Your task to perform on an android device: open app "Pluto TV - Live TV and Movies" (install if not already installed) and go to login screen Image 0: 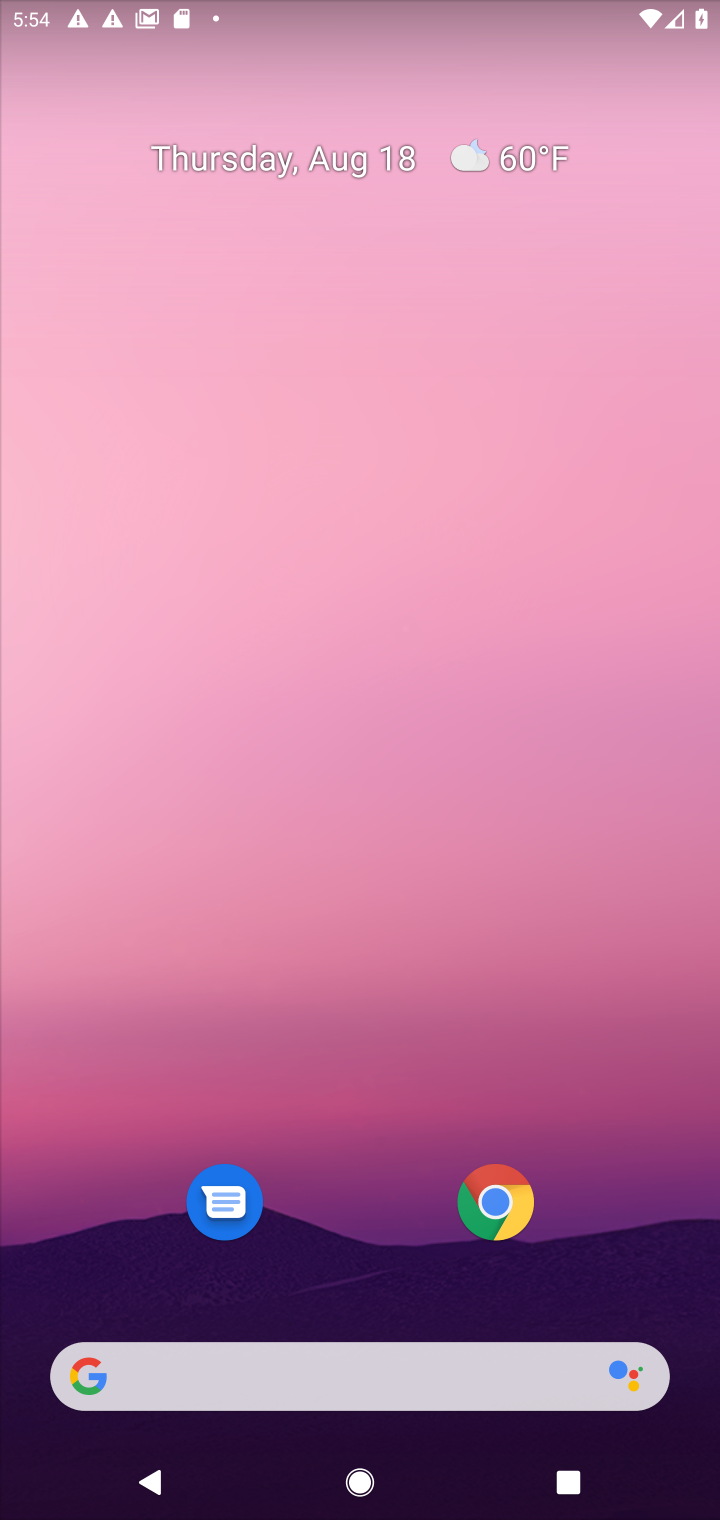
Step 0: drag from (346, 932) to (314, 218)
Your task to perform on an android device: open app "Pluto TV - Live TV and Movies" (install if not already installed) and go to login screen Image 1: 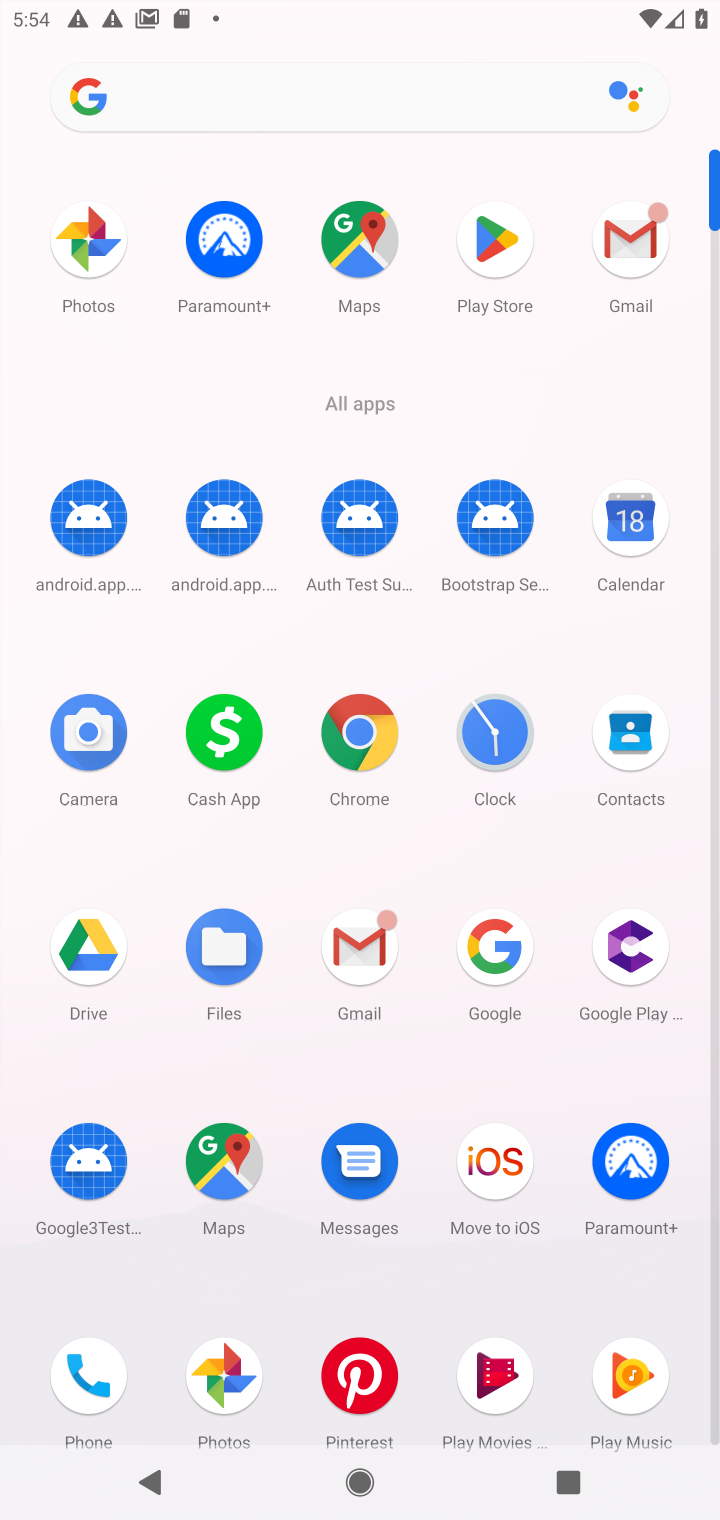
Step 1: click (492, 267)
Your task to perform on an android device: open app "Pluto TV - Live TV and Movies" (install if not already installed) and go to login screen Image 2: 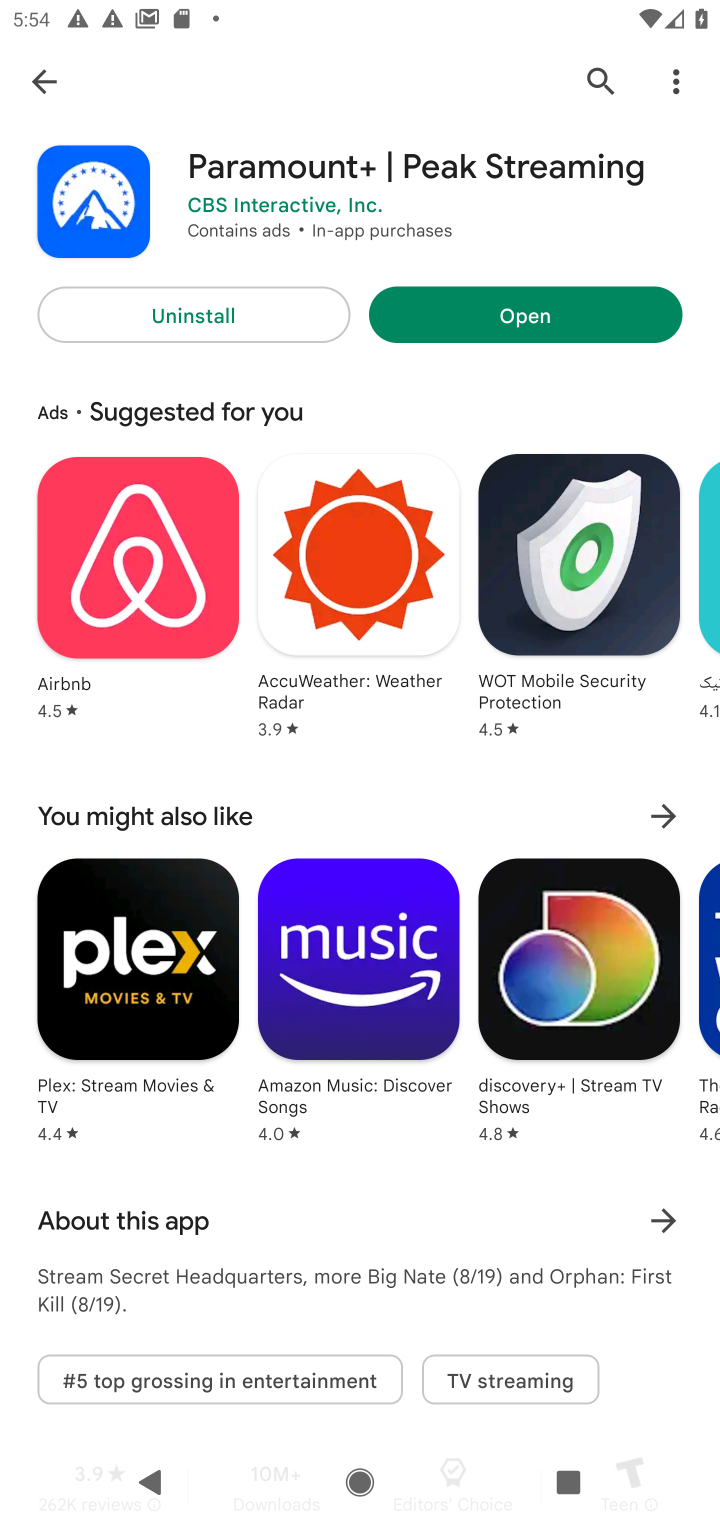
Step 2: click (591, 90)
Your task to perform on an android device: open app "Pluto TV - Live TV and Movies" (install if not already installed) and go to login screen Image 3: 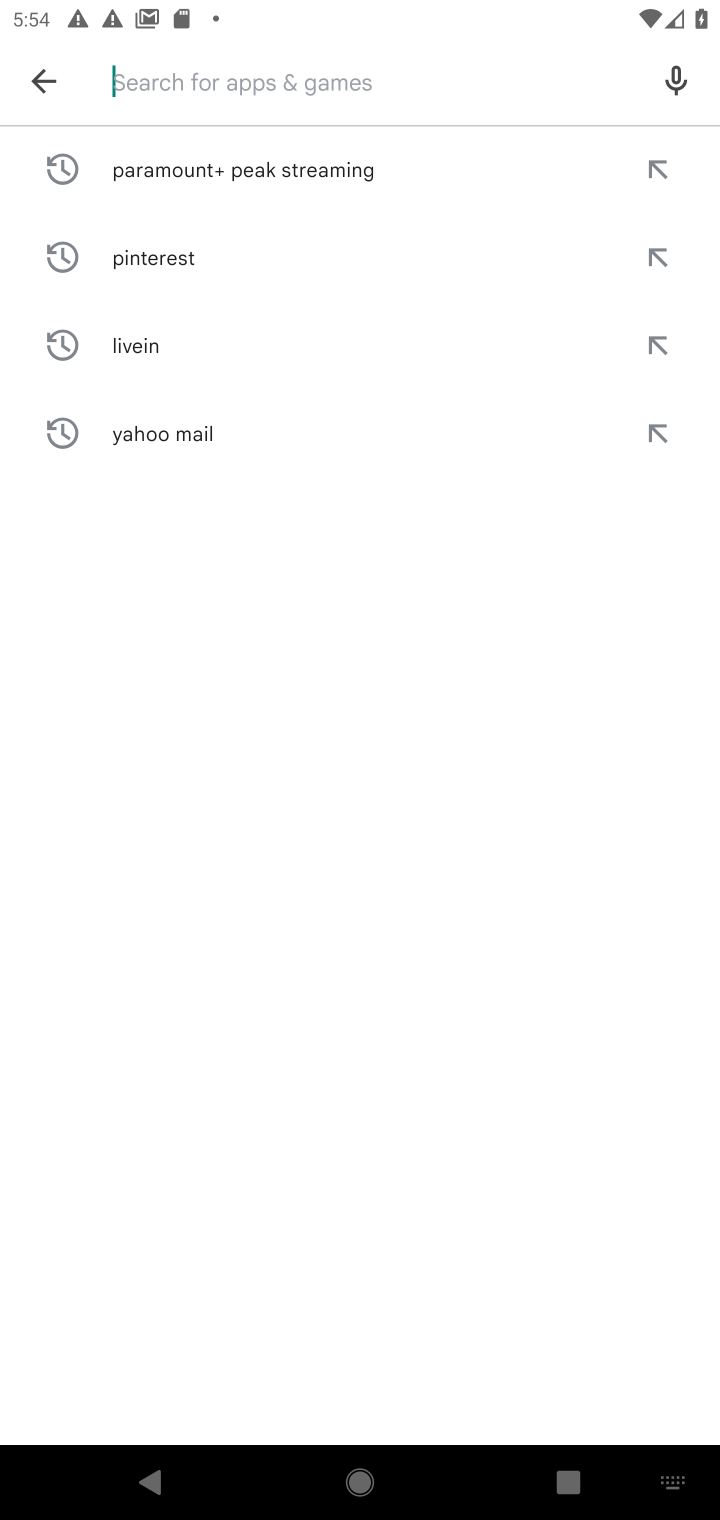
Step 3: type "pluto tv"
Your task to perform on an android device: open app "Pluto TV - Live TV and Movies" (install if not already installed) and go to login screen Image 4: 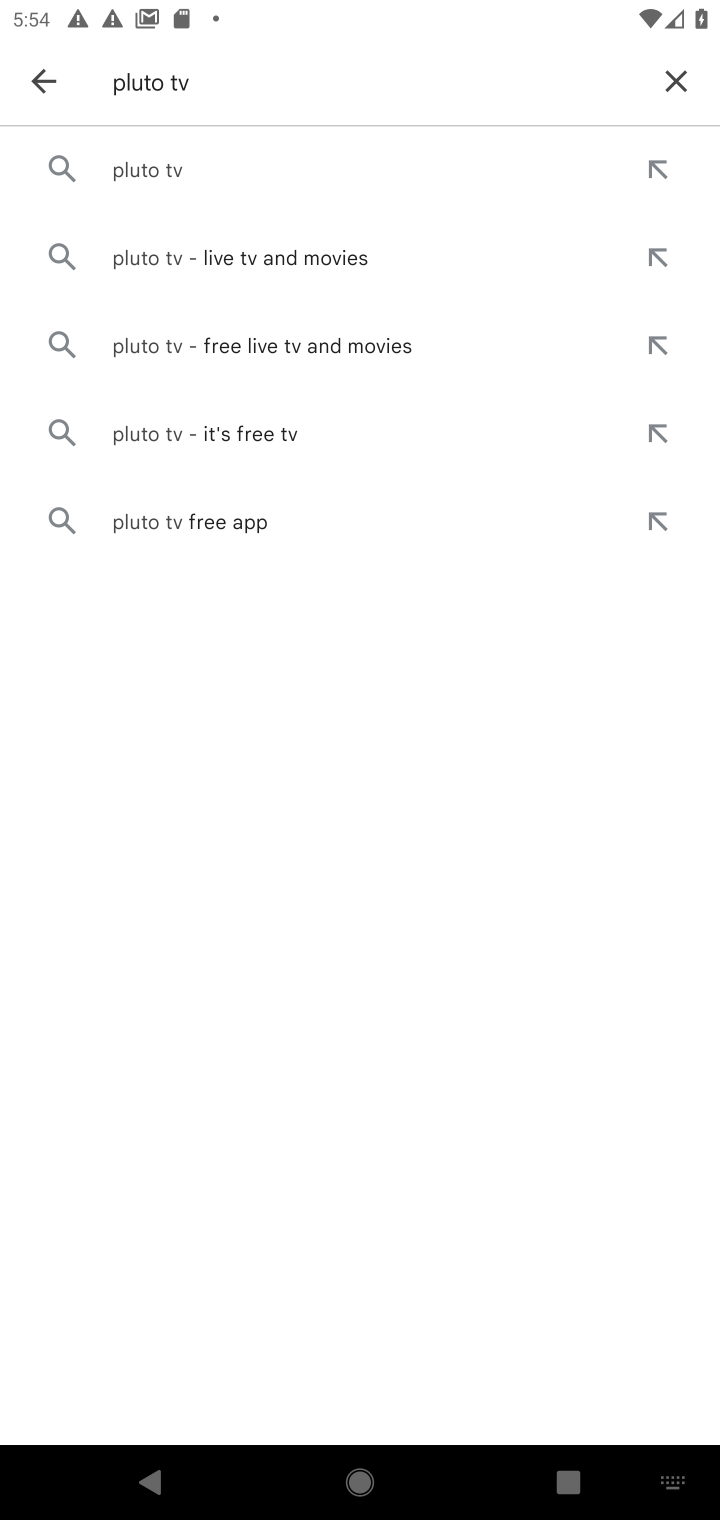
Step 4: click (212, 183)
Your task to perform on an android device: open app "Pluto TV - Live TV and Movies" (install if not already installed) and go to login screen Image 5: 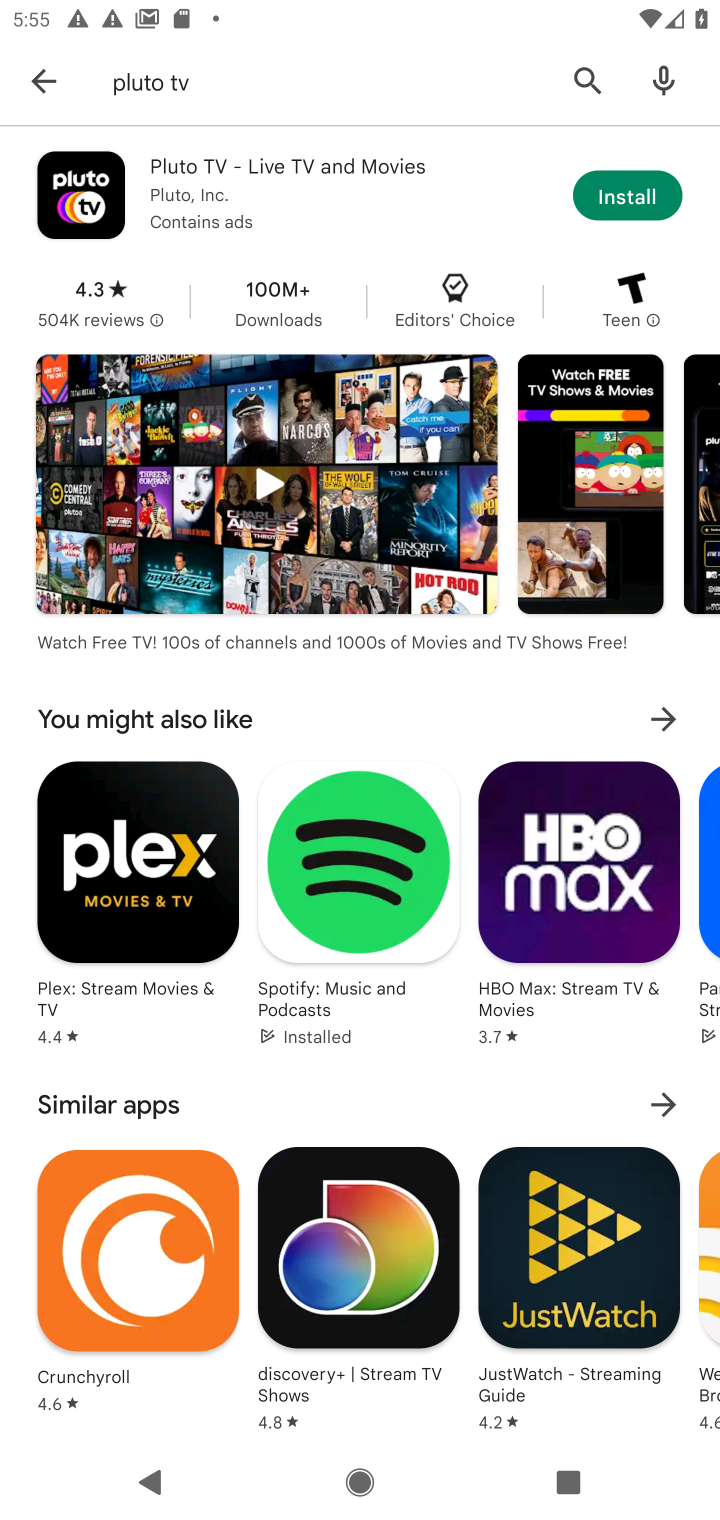
Step 5: click (648, 202)
Your task to perform on an android device: open app "Pluto TV - Live TV and Movies" (install if not already installed) and go to login screen Image 6: 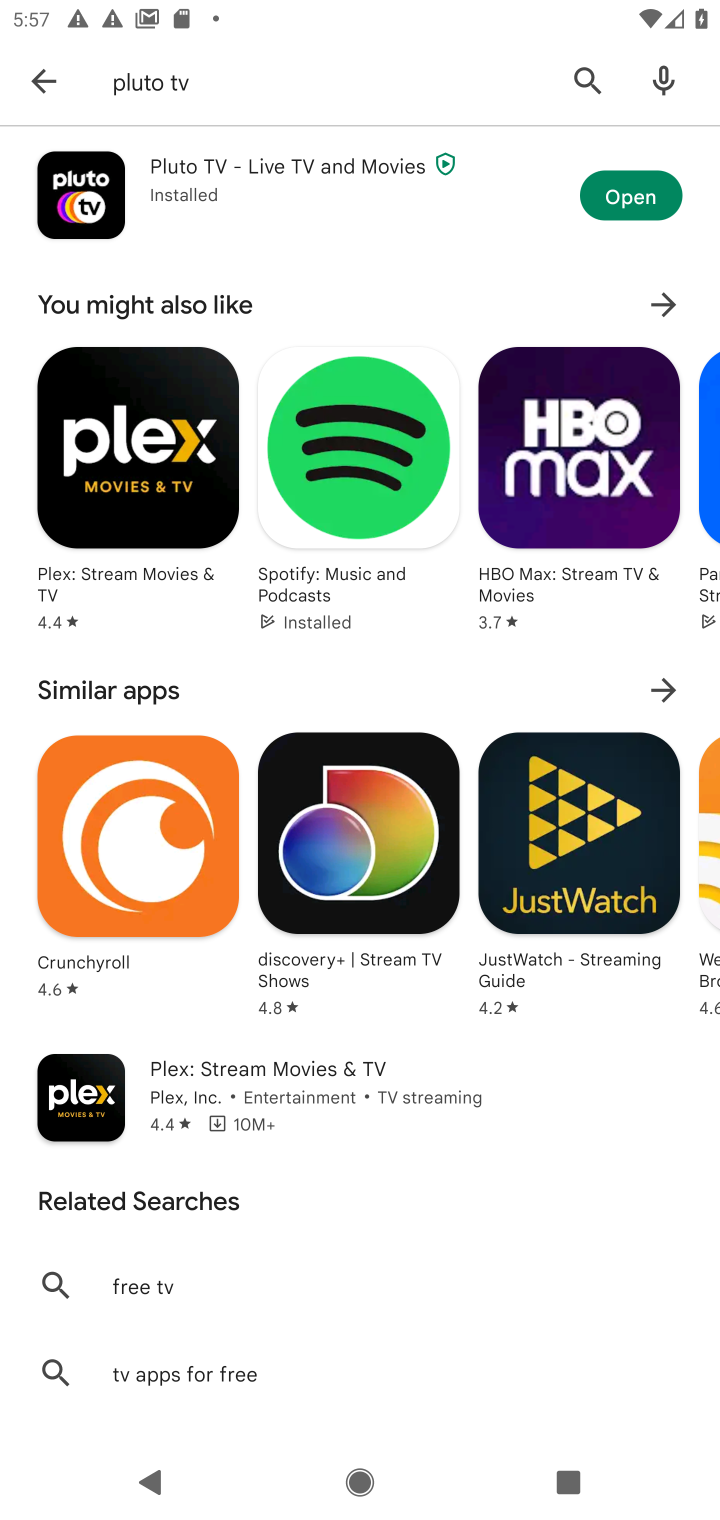
Step 6: click (597, 183)
Your task to perform on an android device: open app "Pluto TV - Live TV and Movies" (install if not already installed) and go to login screen Image 7: 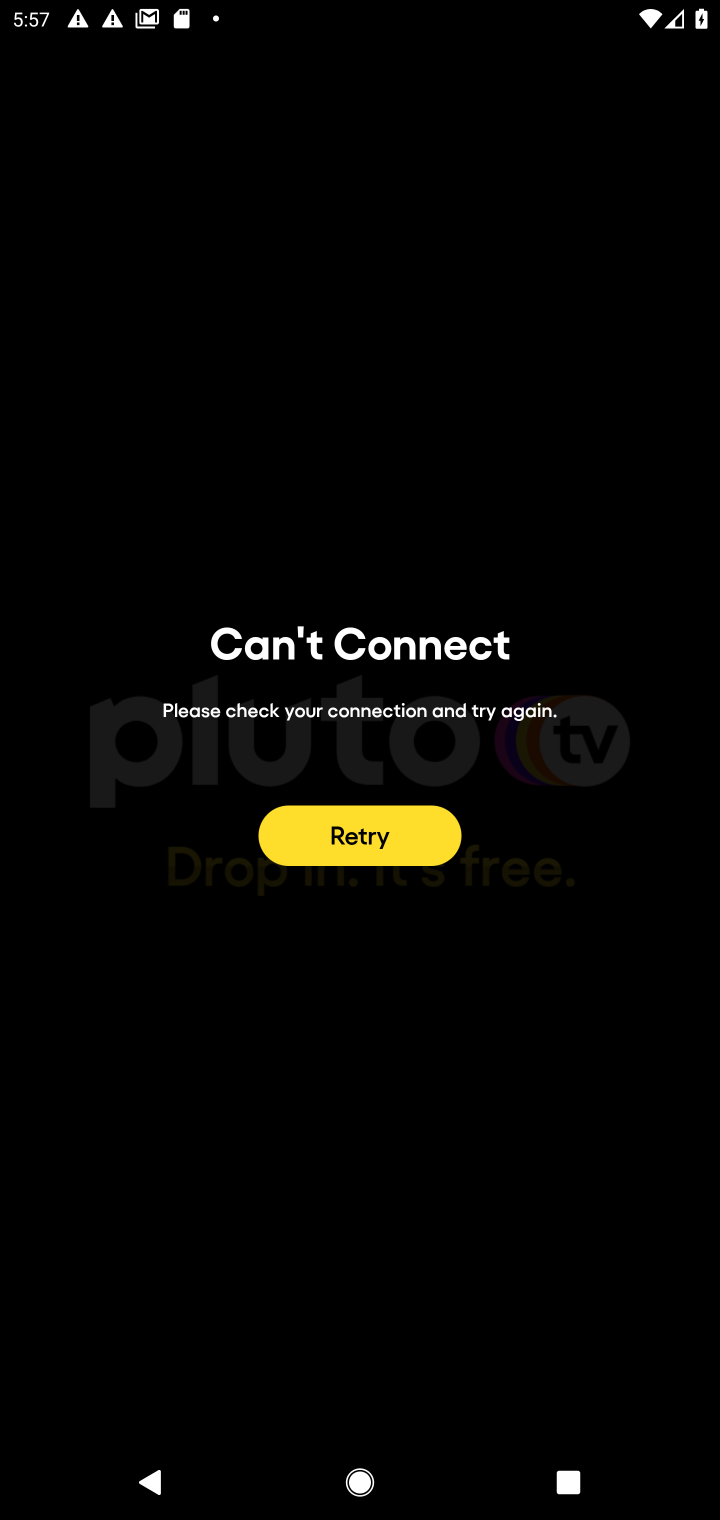
Step 7: task complete